Your task to perform on an android device: What's on my calendar tomorrow? Image 0: 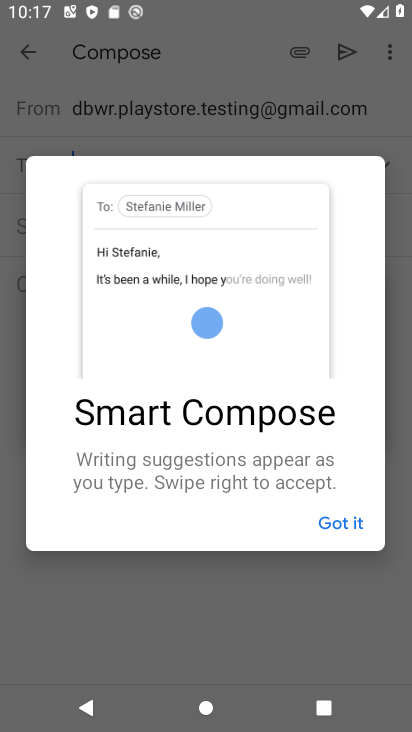
Step 0: press home button
Your task to perform on an android device: What's on my calendar tomorrow? Image 1: 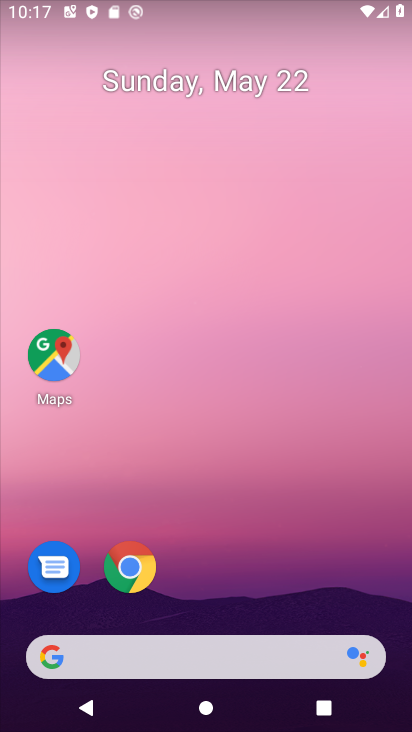
Step 1: drag from (16, 248) to (278, 174)
Your task to perform on an android device: What's on my calendar tomorrow? Image 2: 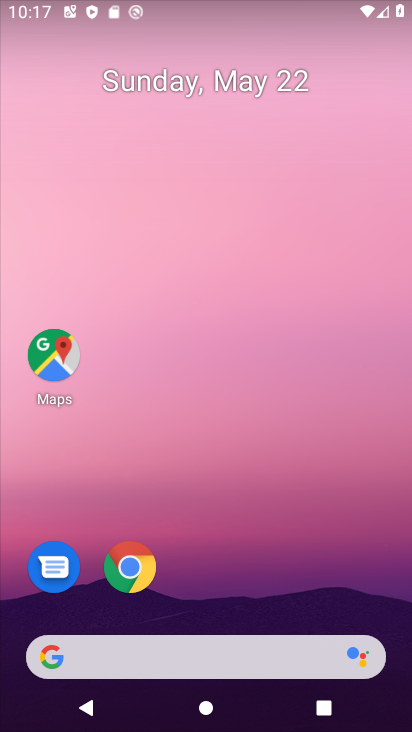
Step 2: drag from (176, 635) to (176, 20)
Your task to perform on an android device: What's on my calendar tomorrow? Image 3: 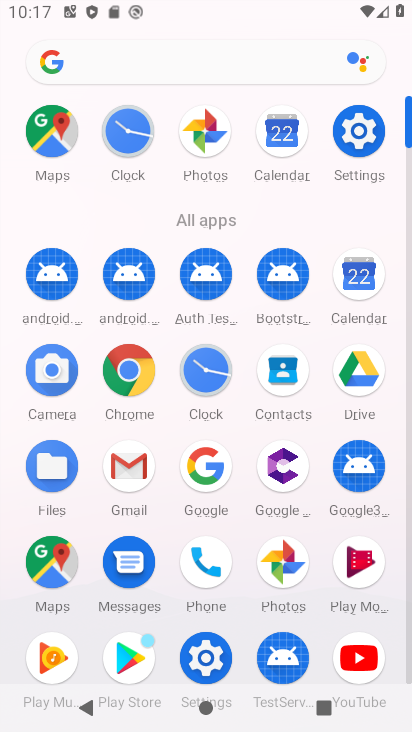
Step 3: click (364, 284)
Your task to perform on an android device: What's on my calendar tomorrow? Image 4: 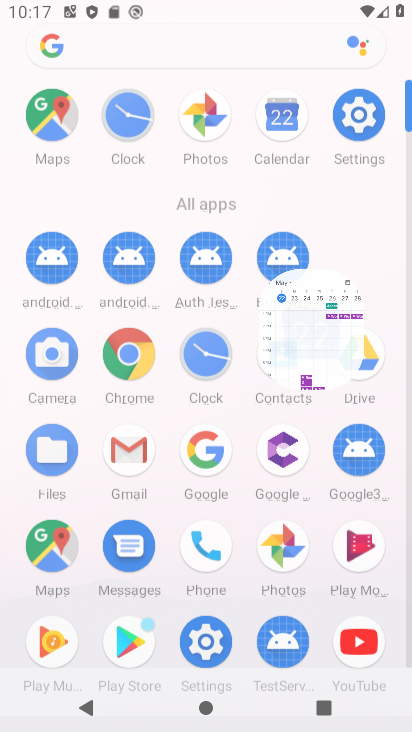
Step 4: click (364, 284)
Your task to perform on an android device: What's on my calendar tomorrow? Image 5: 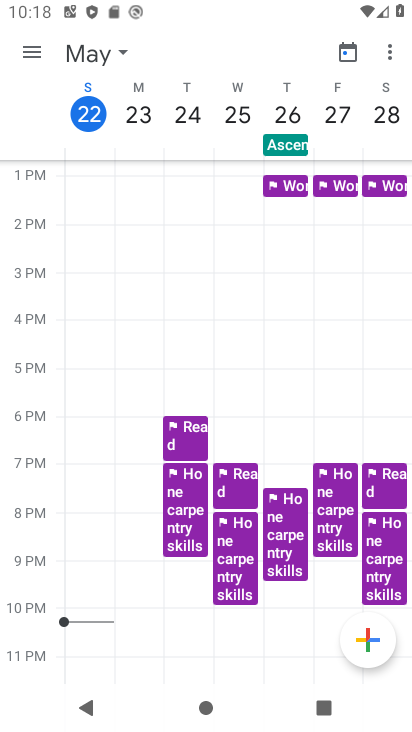
Step 5: click (29, 48)
Your task to perform on an android device: What's on my calendar tomorrow? Image 6: 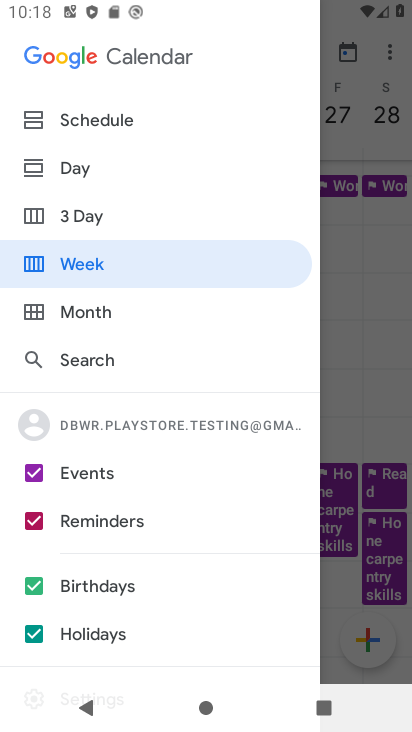
Step 6: click (92, 118)
Your task to perform on an android device: What's on my calendar tomorrow? Image 7: 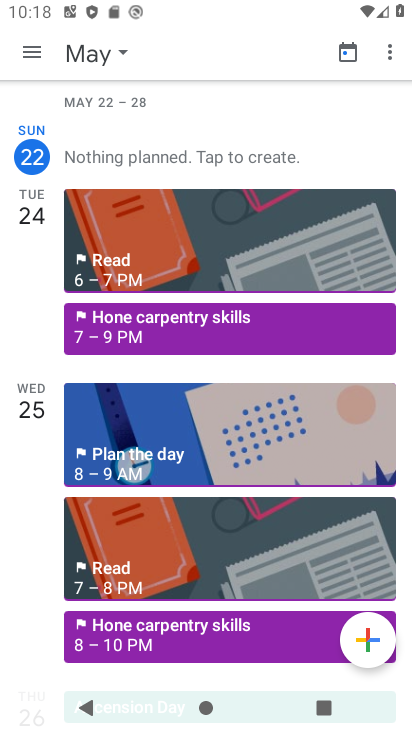
Step 7: task complete